Your task to perform on an android device: Do I have any events today? Image 0: 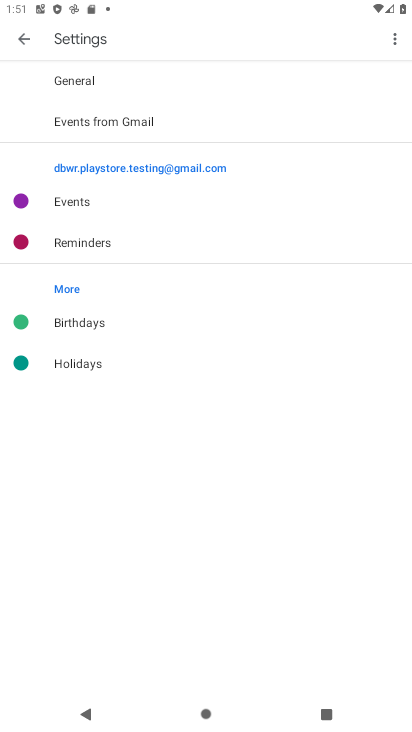
Step 0: click (86, 200)
Your task to perform on an android device: Do I have any events today? Image 1: 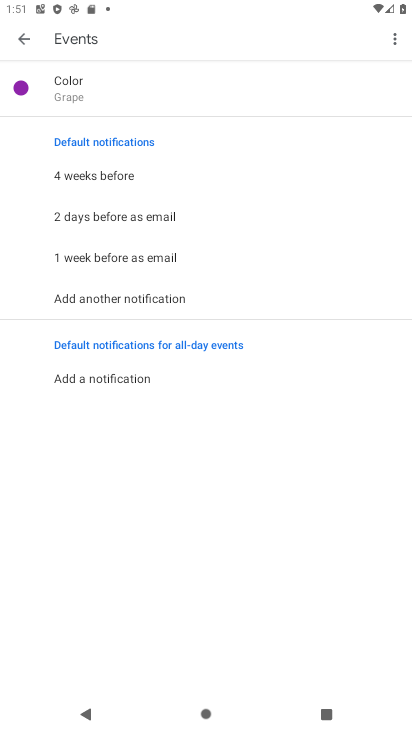
Step 1: press home button
Your task to perform on an android device: Do I have any events today? Image 2: 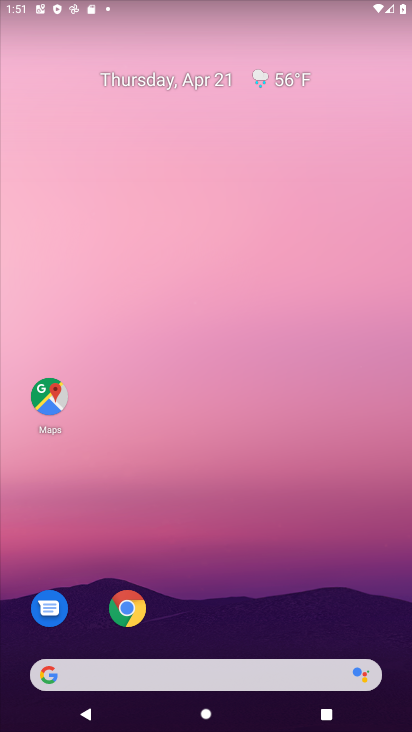
Step 2: drag from (249, 524) to (212, 92)
Your task to perform on an android device: Do I have any events today? Image 3: 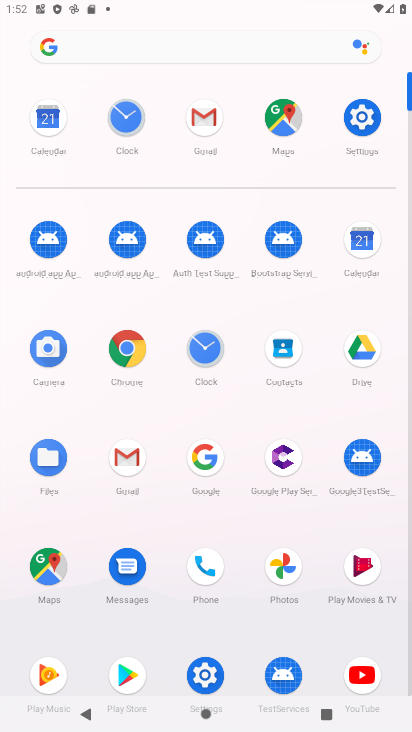
Step 3: click (359, 247)
Your task to perform on an android device: Do I have any events today? Image 4: 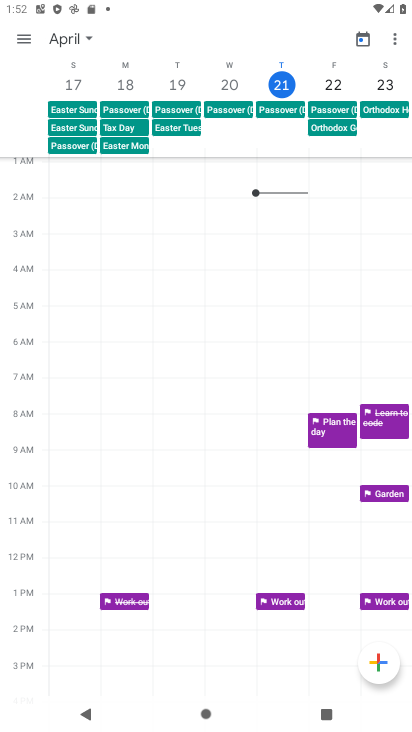
Step 4: click (21, 37)
Your task to perform on an android device: Do I have any events today? Image 5: 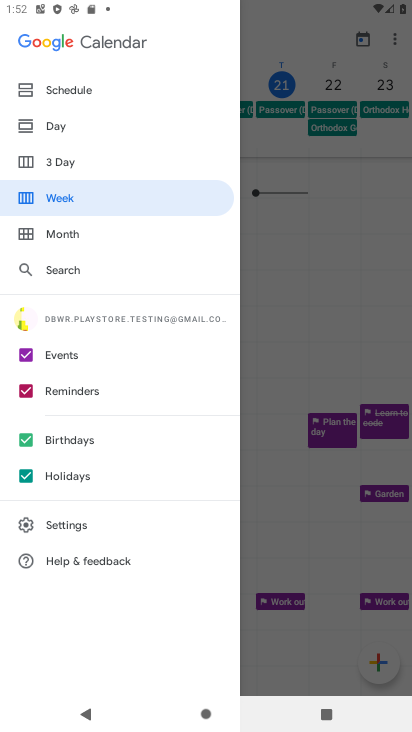
Step 5: click (27, 388)
Your task to perform on an android device: Do I have any events today? Image 6: 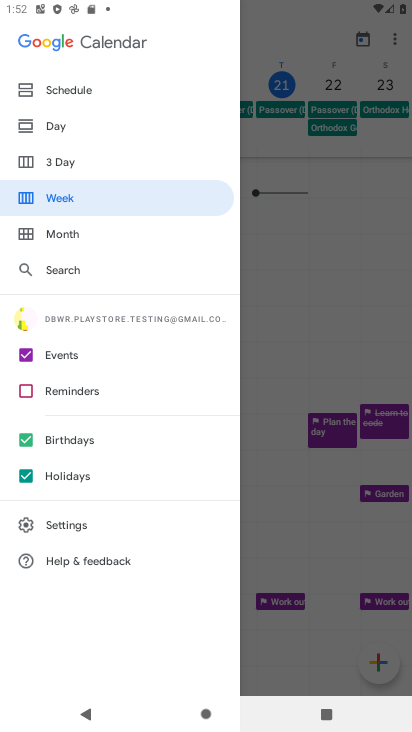
Step 6: click (26, 434)
Your task to perform on an android device: Do I have any events today? Image 7: 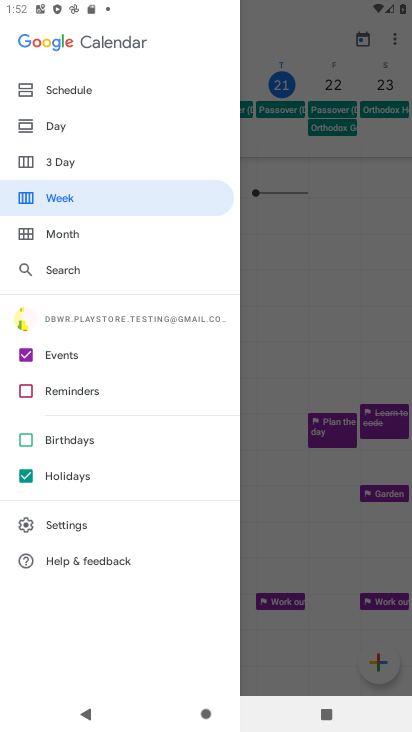
Step 7: click (26, 482)
Your task to perform on an android device: Do I have any events today? Image 8: 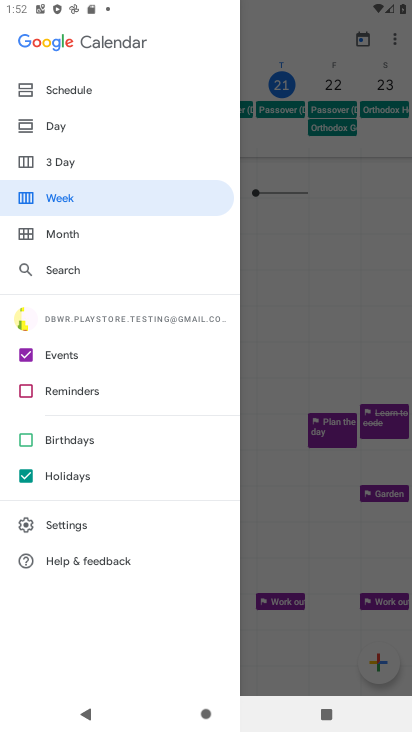
Step 8: click (27, 476)
Your task to perform on an android device: Do I have any events today? Image 9: 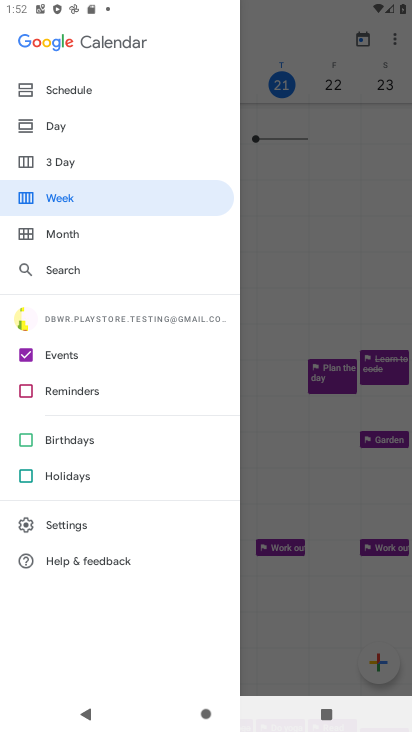
Step 9: click (59, 126)
Your task to perform on an android device: Do I have any events today? Image 10: 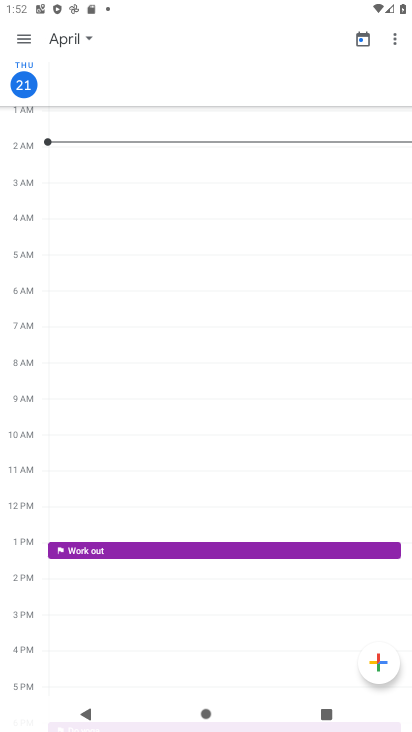
Step 10: task complete